Your task to perform on an android device: Open network settings Image 0: 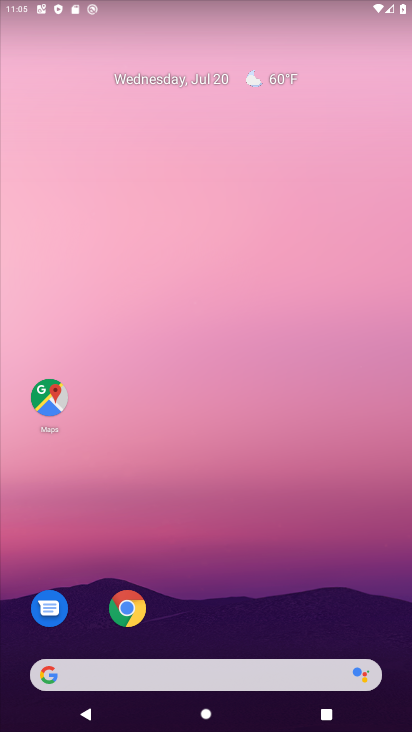
Step 0: drag from (232, 613) to (268, 50)
Your task to perform on an android device: Open network settings Image 1: 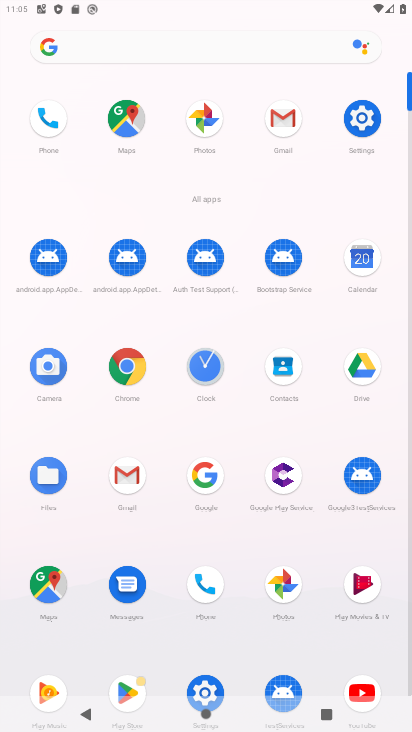
Step 1: click (367, 112)
Your task to perform on an android device: Open network settings Image 2: 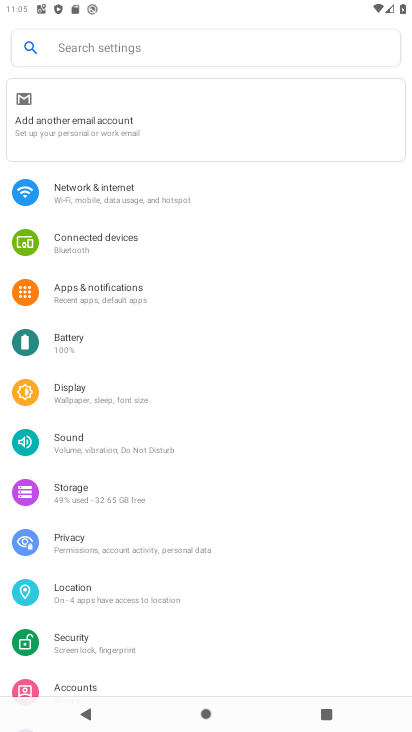
Step 2: click (168, 202)
Your task to perform on an android device: Open network settings Image 3: 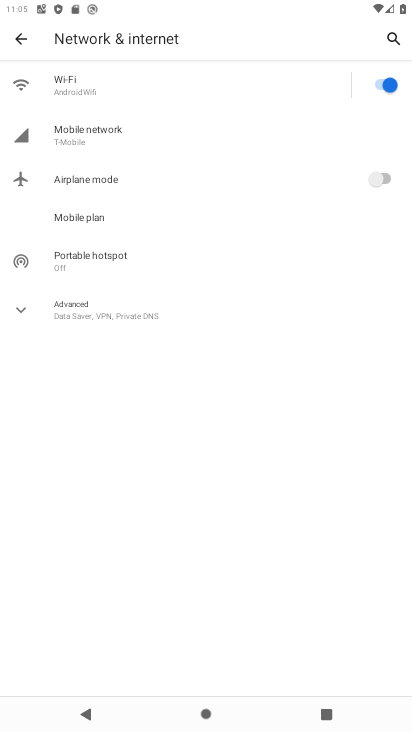
Step 3: click (124, 133)
Your task to perform on an android device: Open network settings Image 4: 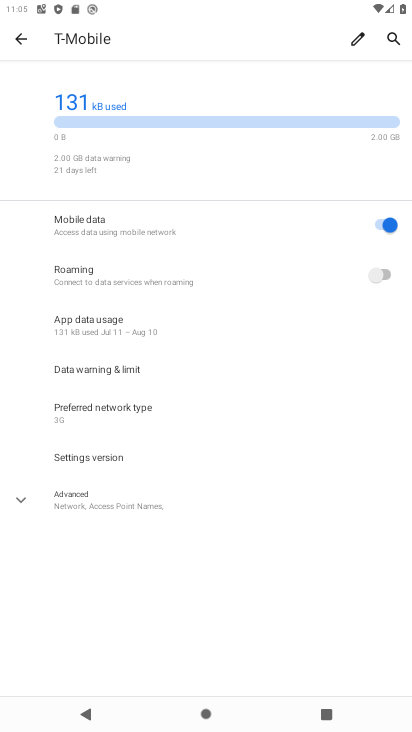
Step 4: task complete